Your task to perform on an android device: Search for custom wallets on Etsy. Image 0: 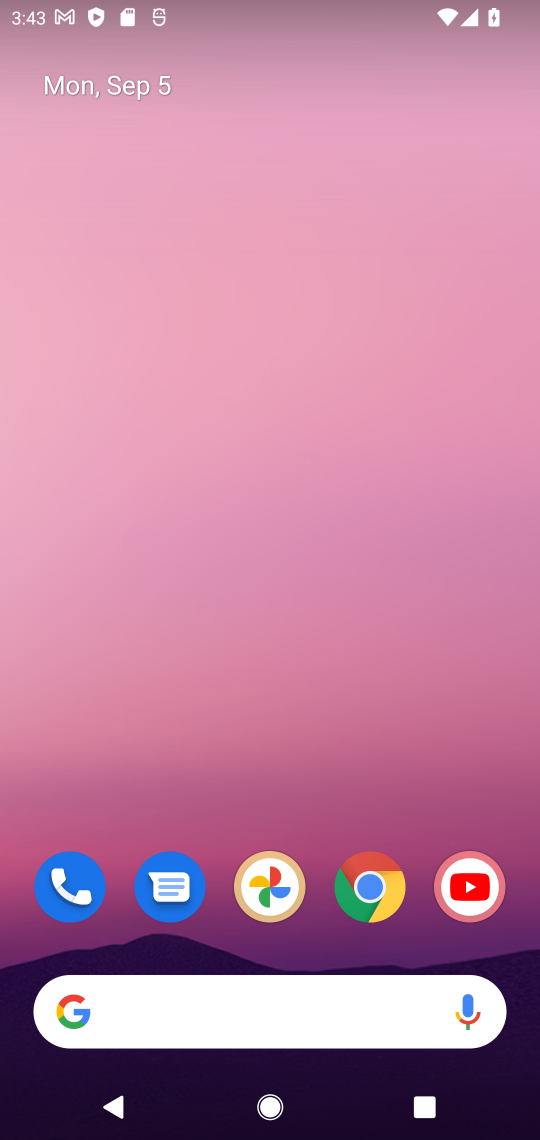
Step 0: drag from (331, 821) to (314, 20)
Your task to perform on an android device: Search for custom wallets on Etsy. Image 1: 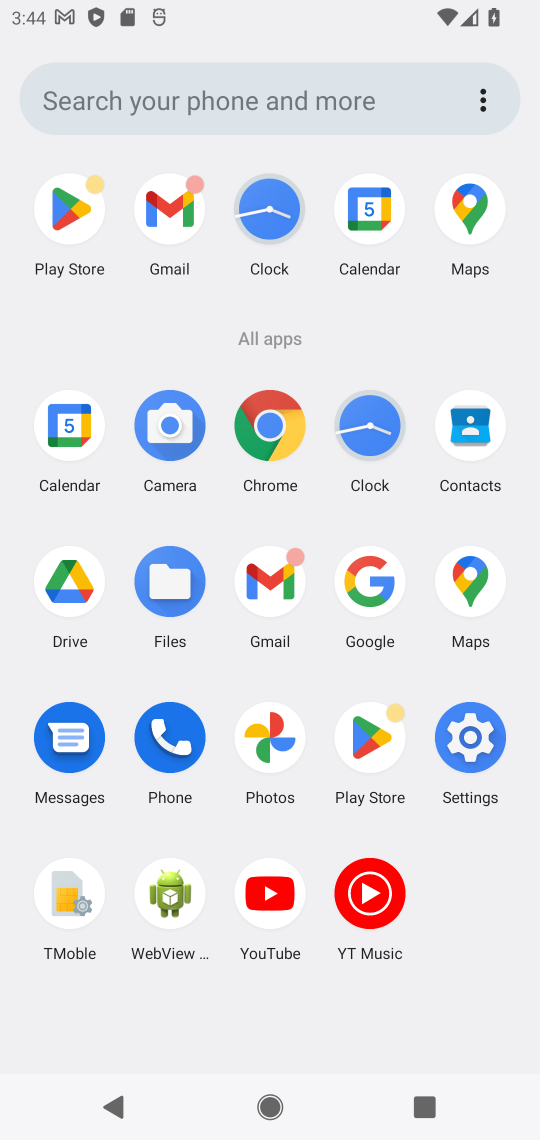
Step 1: click (265, 427)
Your task to perform on an android device: Search for custom wallets on Etsy. Image 2: 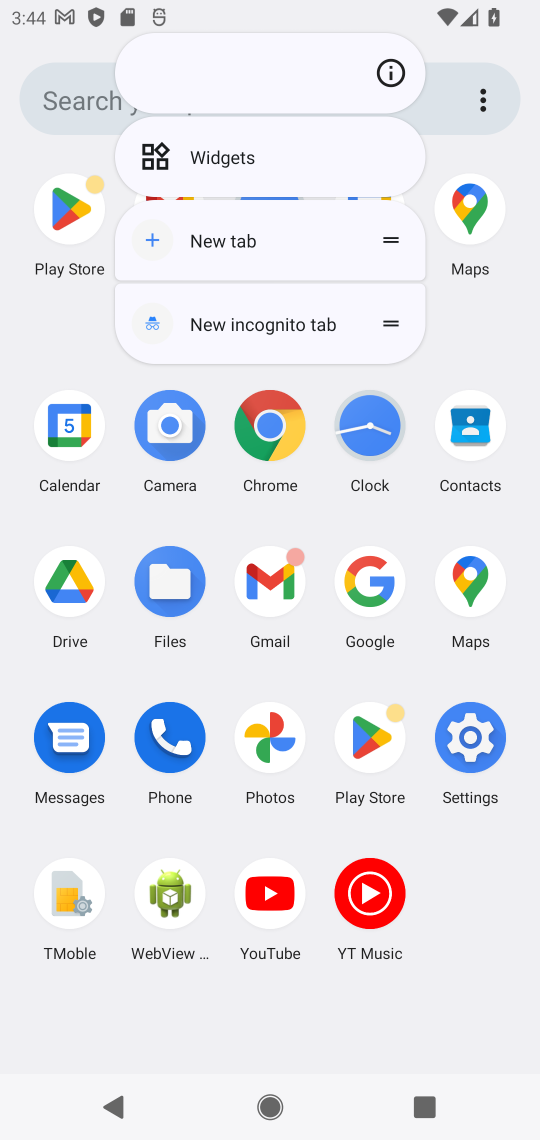
Step 2: click (267, 429)
Your task to perform on an android device: Search for custom wallets on Etsy. Image 3: 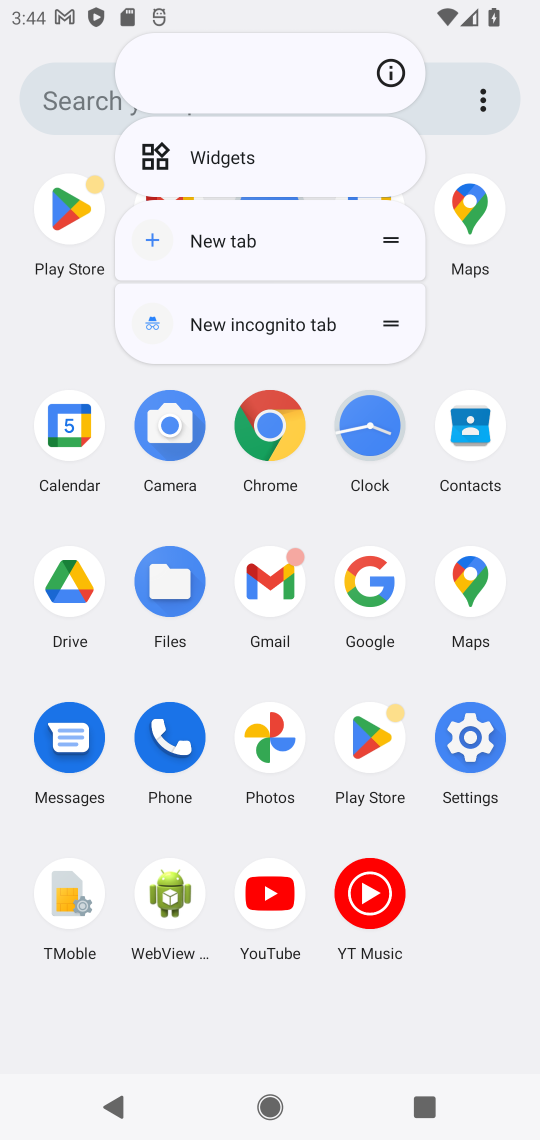
Step 3: click (286, 419)
Your task to perform on an android device: Search for custom wallets on Etsy. Image 4: 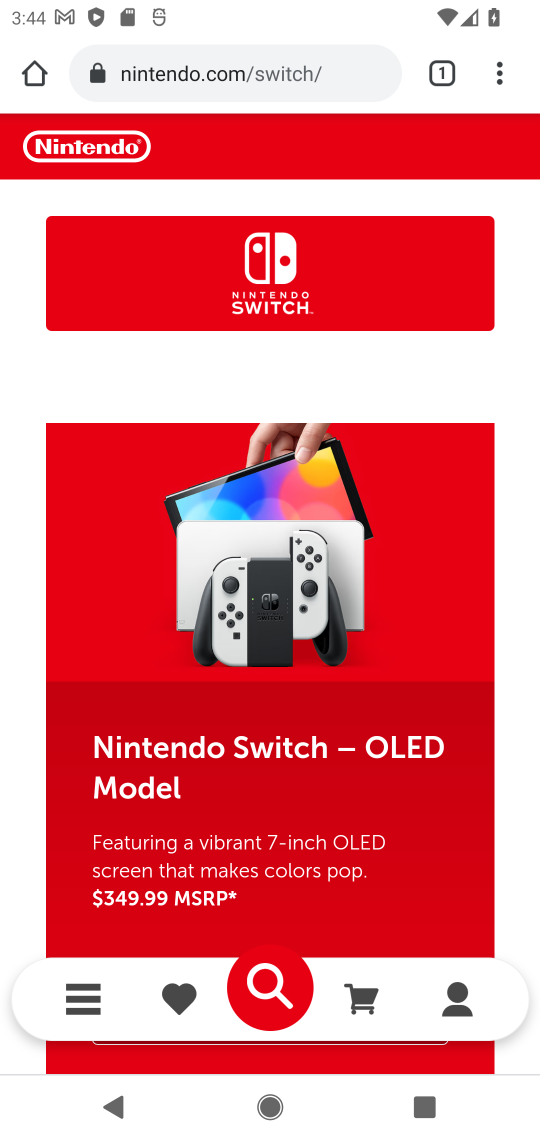
Step 4: drag from (434, 189) to (418, 598)
Your task to perform on an android device: Search for custom wallets on Etsy. Image 5: 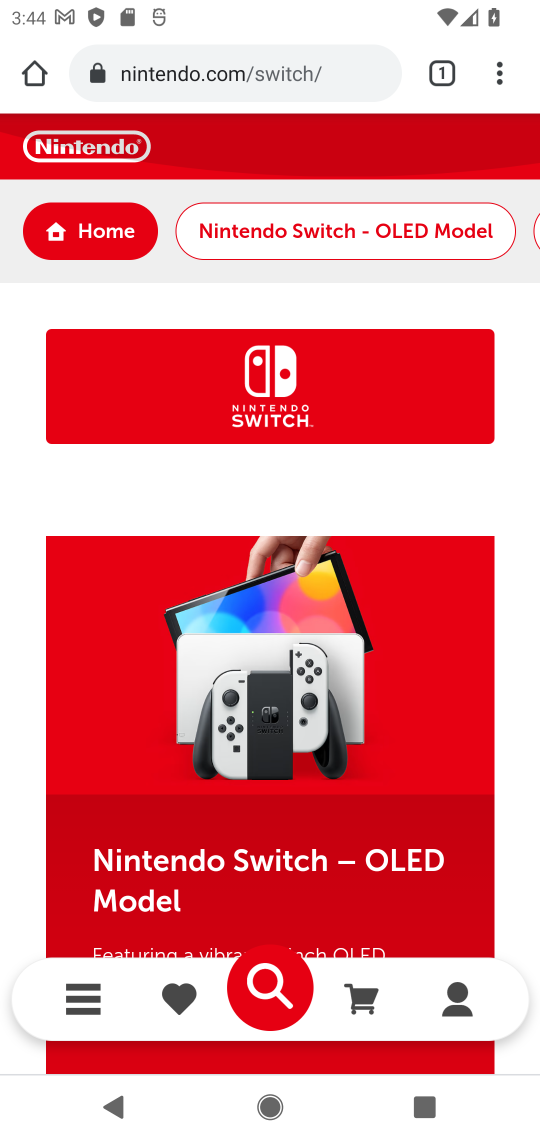
Step 5: click (303, 71)
Your task to perform on an android device: Search for custom wallets on Etsy. Image 6: 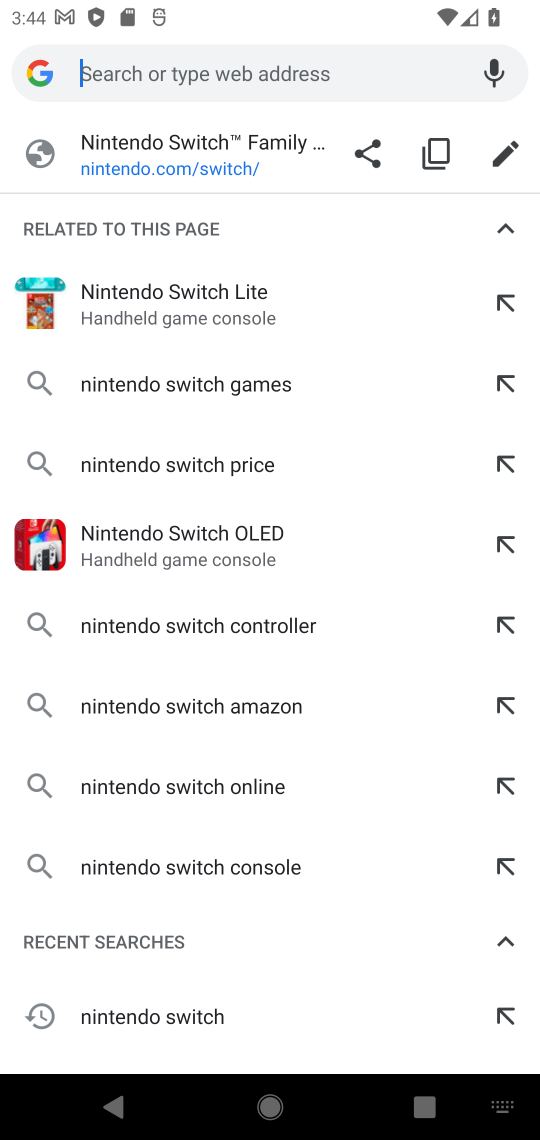
Step 6: type "custom wallets on Etsy"
Your task to perform on an android device: Search for custom wallets on Etsy. Image 7: 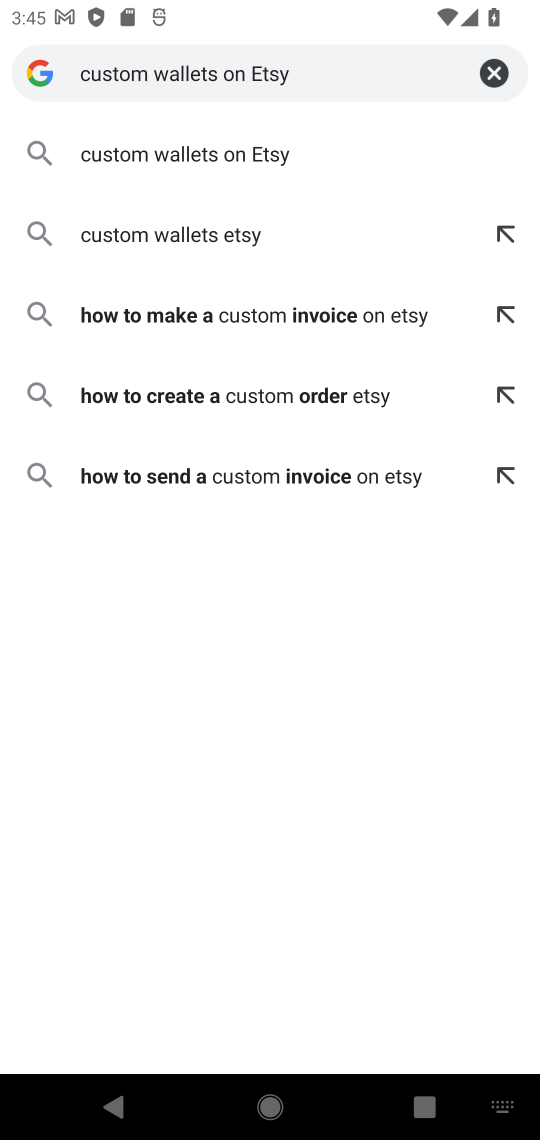
Step 7: press enter
Your task to perform on an android device: Search for custom wallets on Etsy. Image 8: 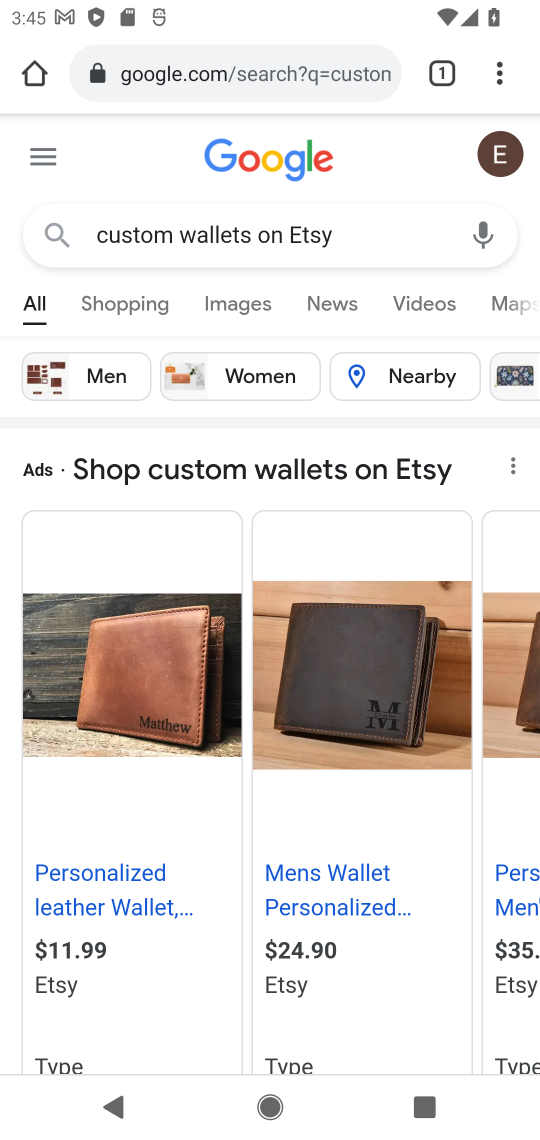
Step 8: drag from (404, 981) to (439, 209)
Your task to perform on an android device: Search for custom wallets on Etsy. Image 9: 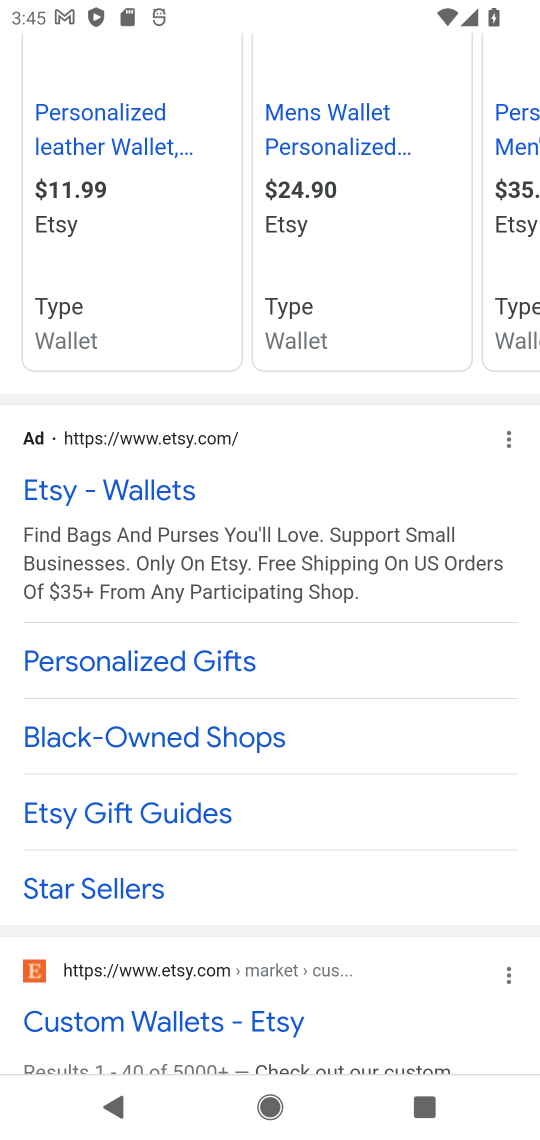
Step 9: drag from (328, 911) to (340, 163)
Your task to perform on an android device: Search for custom wallets on Etsy. Image 10: 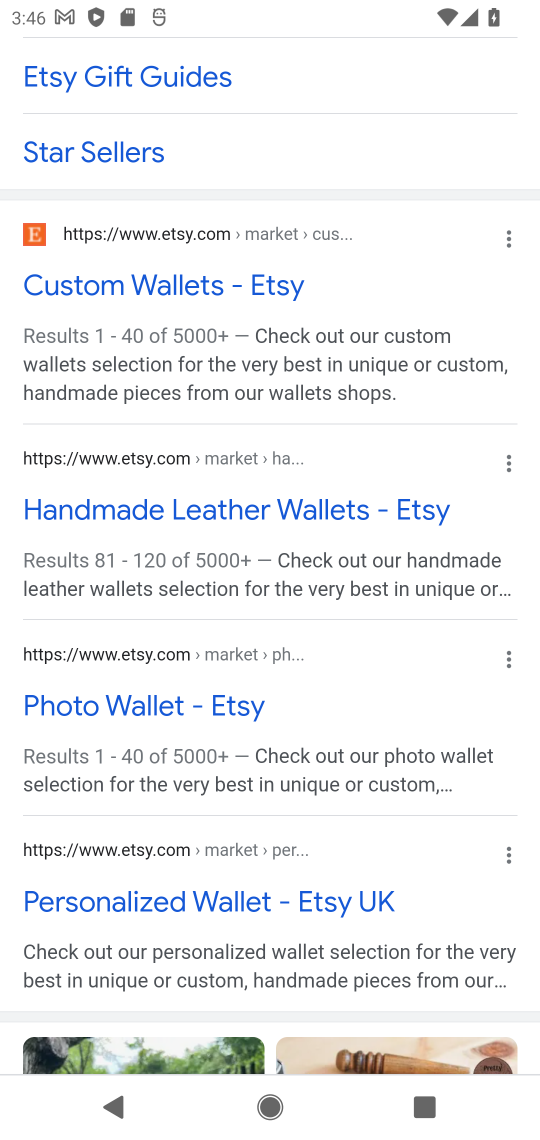
Step 10: click (161, 292)
Your task to perform on an android device: Search for custom wallets on Etsy. Image 11: 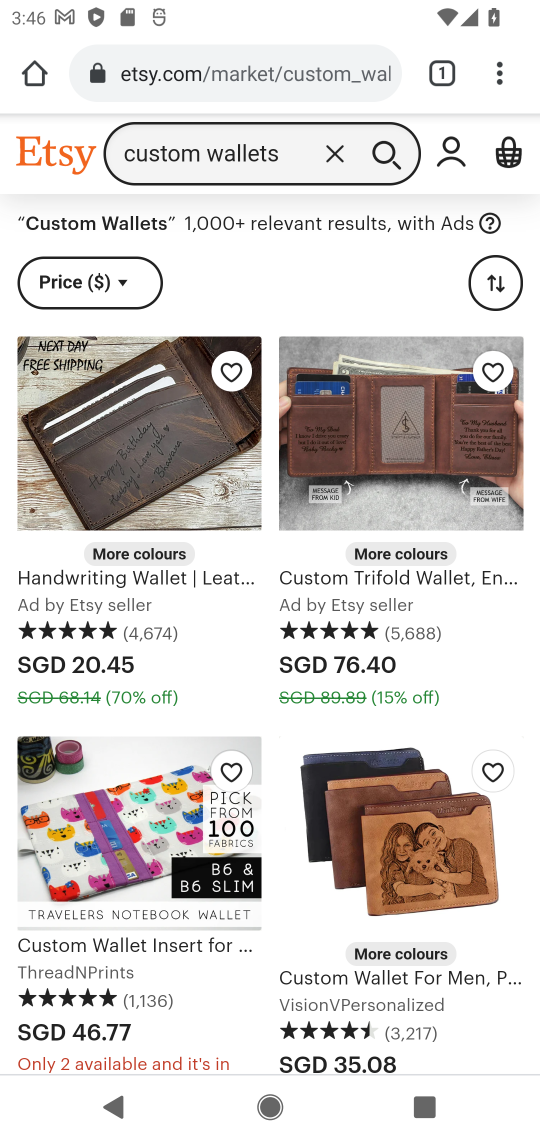
Step 11: task complete